Your task to perform on an android device: Open network settings Image 0: 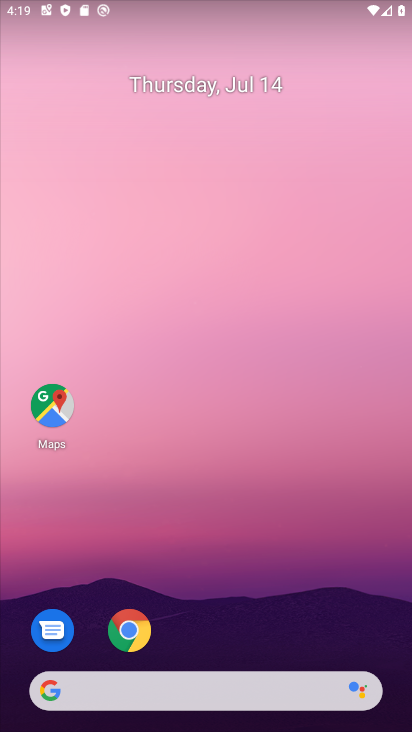
Step 0: drag from (126, 672) to (240, 40)
Your task to perform on an android device: Open network settings Image 1: 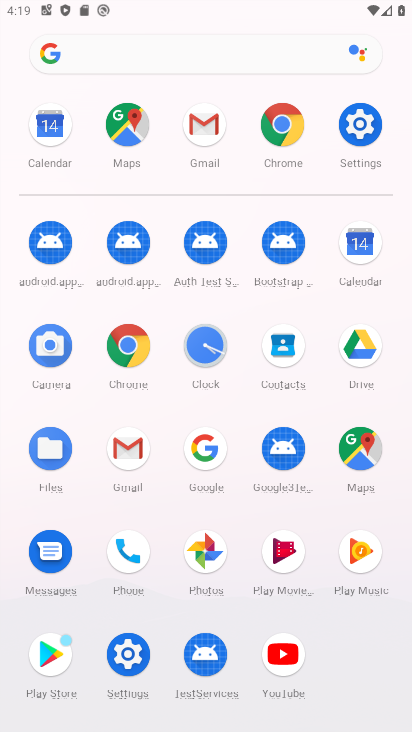
Step 1: click (360, 121)
Your task to perform on an android device: Open network settings Image 2: 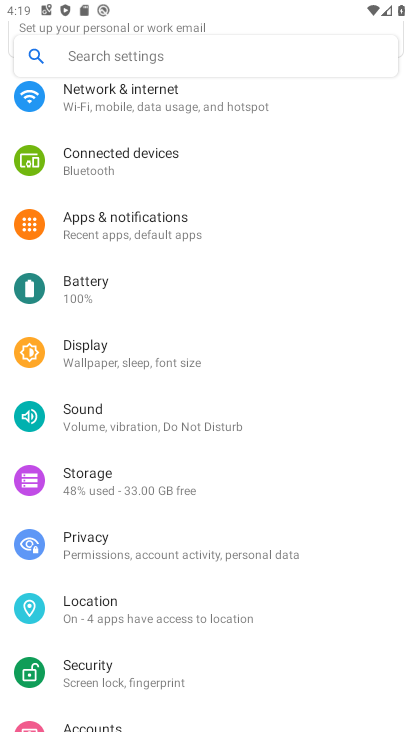
Step 2: click (90, 109)
Your task to perform on an android device: Open network settings Image 3: 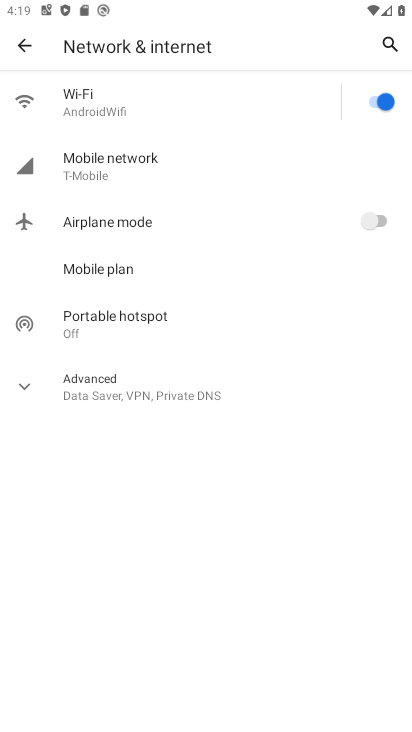
Step 3: task complete